Your task to perform on an android device: change alarm snooze length Image 0: 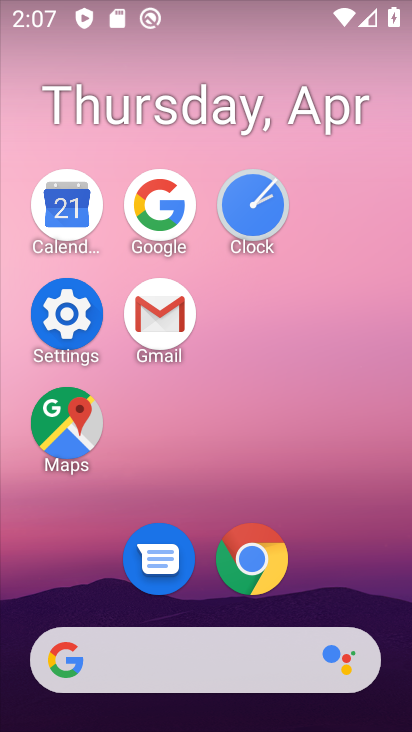
Step 0: click (237, 214)
Your task to perform on an android device: change alarm snooze length Image 1: 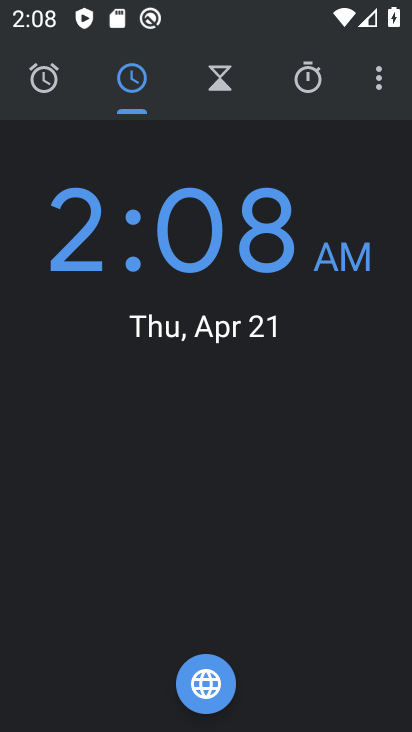
Step 1: click (383, 81)
Your task to perform on an android device: change alarm snooze length Image 2: 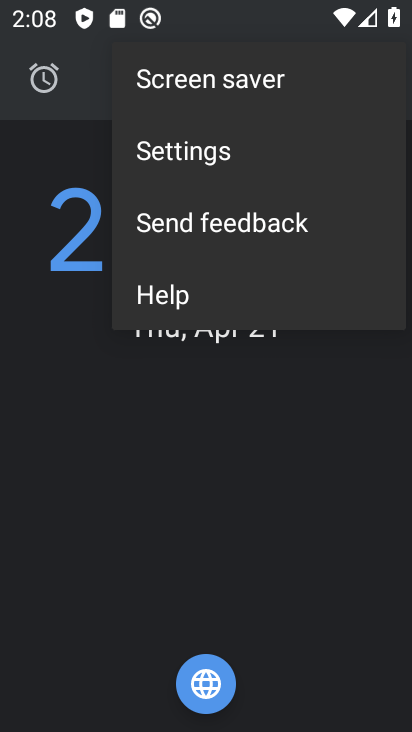
Step 2: click (227, 145)
Your task to perform on an android device: change alarm snooze length Image 3: 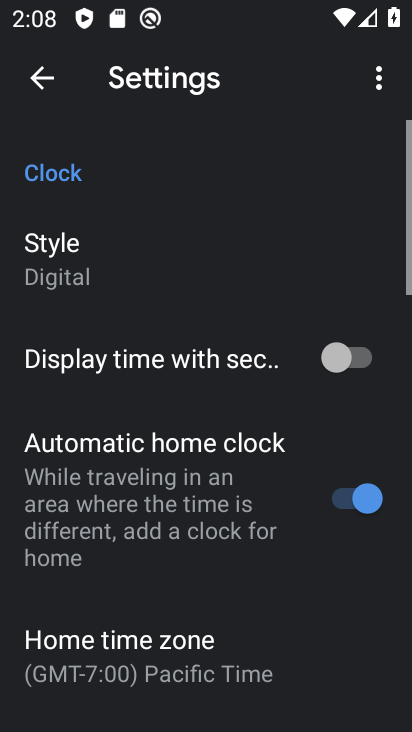
Step 3: drag from (167, 311) to (199, 146)
Your task to perform on an android device: change alarm snooze length Image 4: 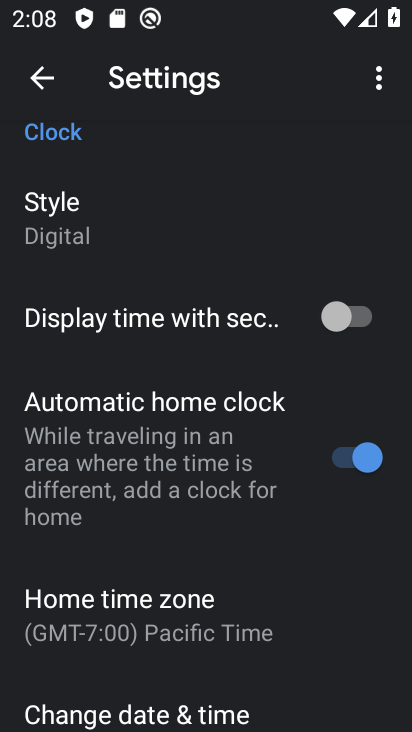
Step 4: drag from (183, 623) to (262, 198)
Your task to perform on an android device: change alarm snooze length Image 5: 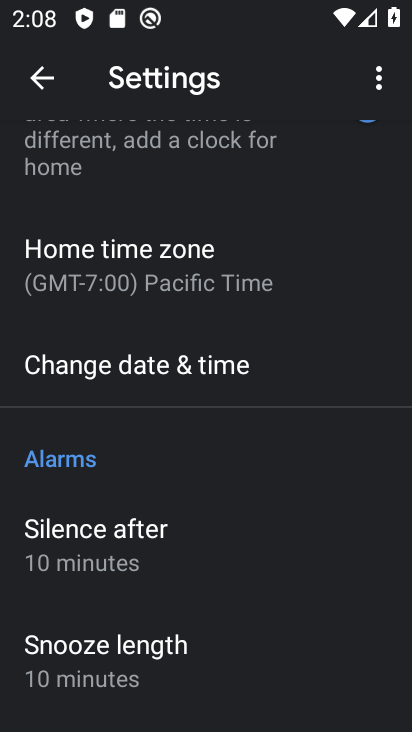
Step 5: click (166, 655)
Your task to perform on an android device: change alarm snooze length Image 6: 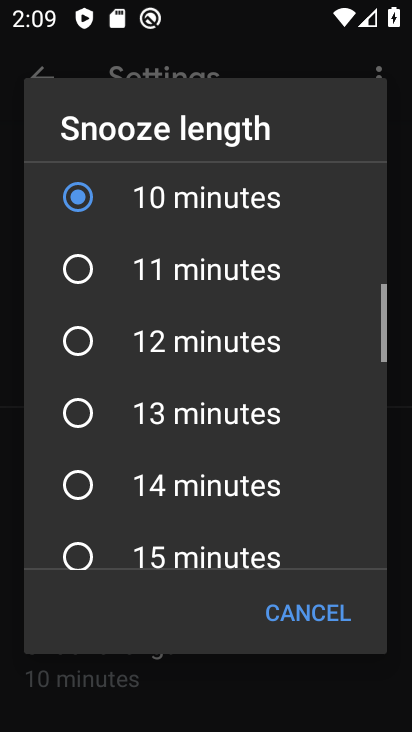
Step 6: click (75, 276)
Your task to perform on an android device: change alarm snooze length Image 7: 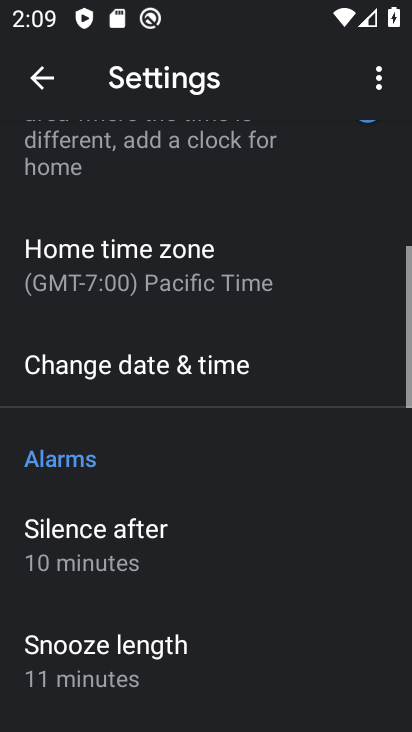
Step 7: task complete